Your task to perform on an android device: Go to wifi settings Image 0: 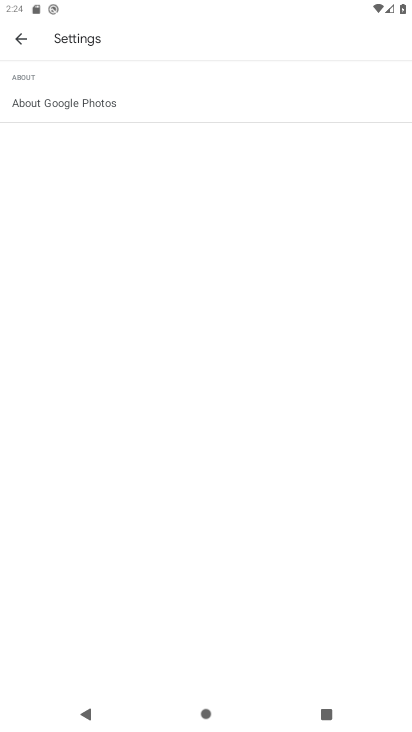
Step 0: press home button
Your task to perform on an android device: Go to wifi settings Image 1: 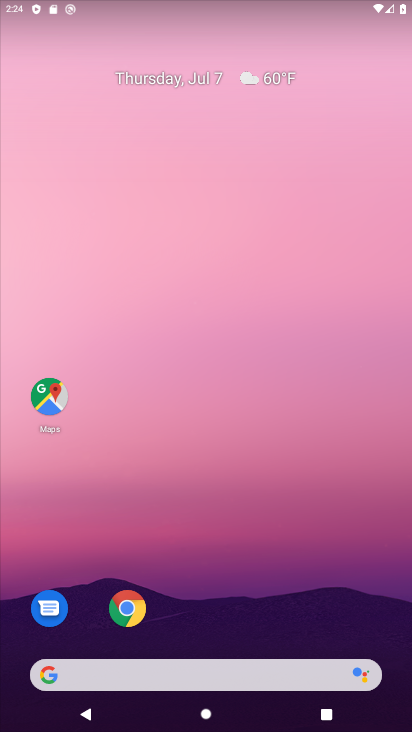
Step 1: drag from (209, 637) to (191, 2)
Your task to perform on an android device: Go to wifi settings Image 2: 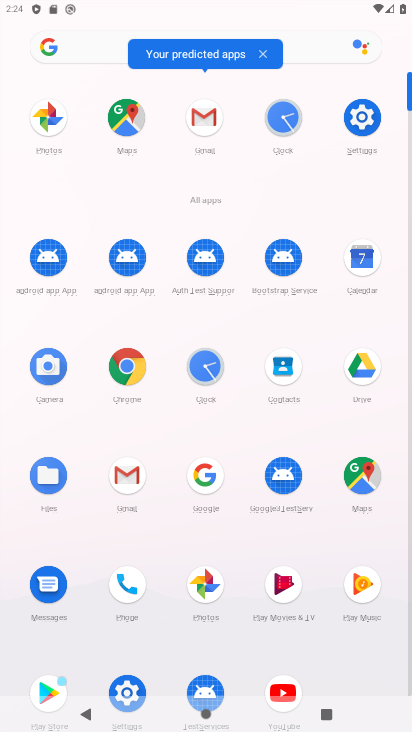
Step 2: click (363, 114)
Your task to perform on an android device: Go to wifi settings Image 3: 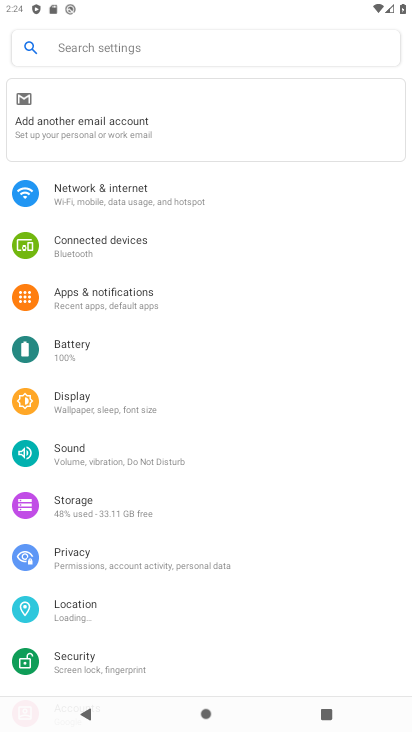
Step 3: click (113, 191)
Your task to perform on an android device: Go to wifi settings Image 4: 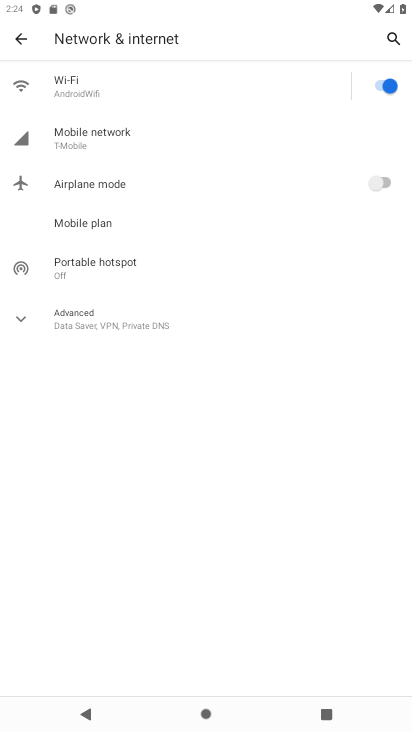
Step 4: click (113, 76)
Your task to perform on an android device: Go to wifi settings Image 5: 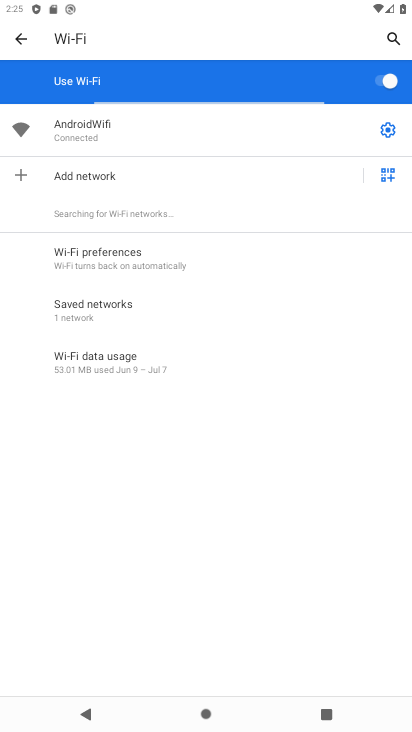
Step 5: task complete